Your task to perform on an android device: turn on sleep mode Image 0: 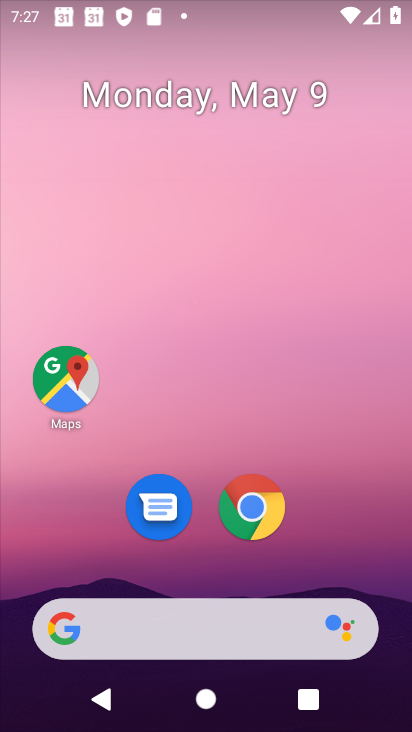
Step 0: drag from (252, 669) to (319, 126)
Your task to perform on an android device: turn on sleep mode Image 1: 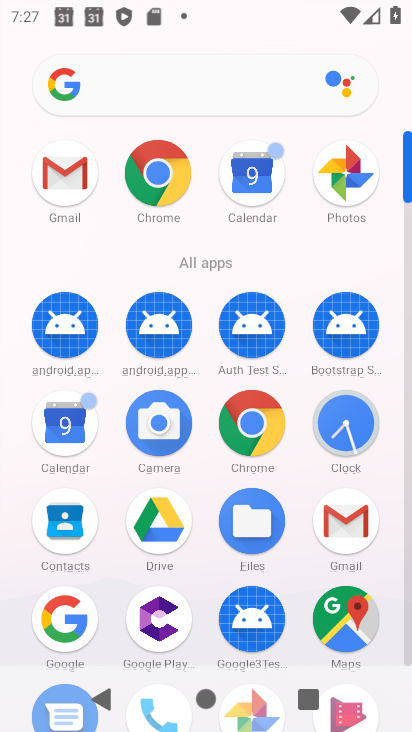
Step 1: drag from (209, 572) to (257, 351)
Your task to perform on an android device: turn on sleep mode Image 2: 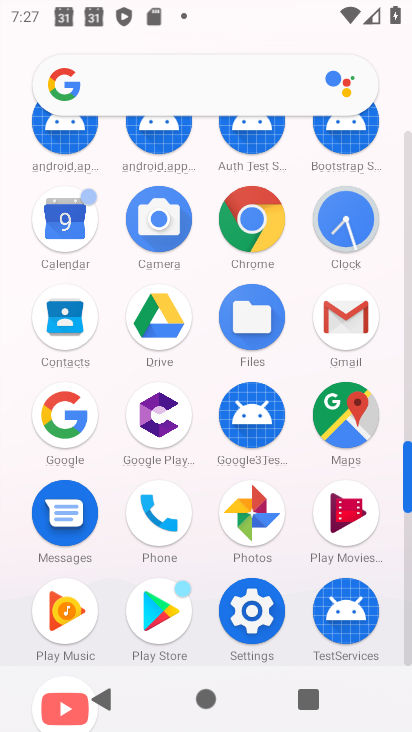
Step 2: click (248, 619)
Your task to perform on an android device: turn on sleep mode Image 3: 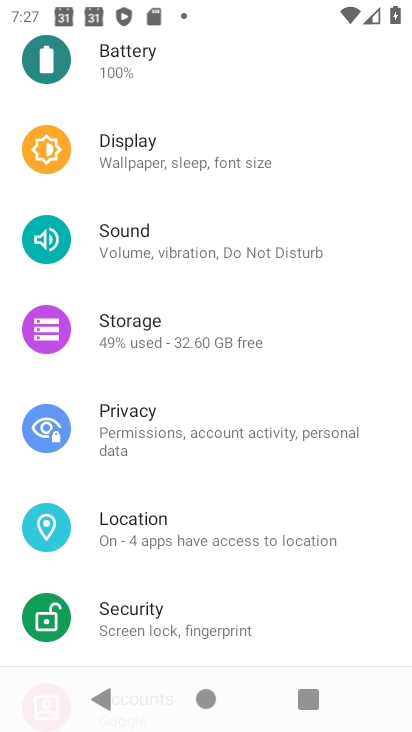
Step 3: drag from (182, 307) to (186, 470)
Your task to perform on an android device: turn on sleep mode Image 4: 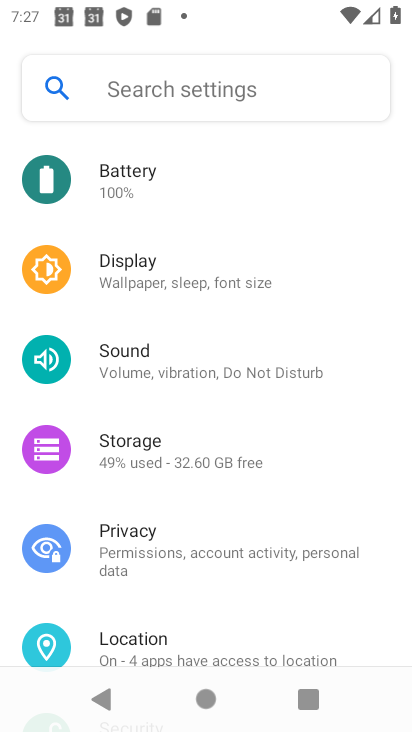
Step 4: click (198, 92)
Your task to perform on an android device: turn on sleep mode Image 5: 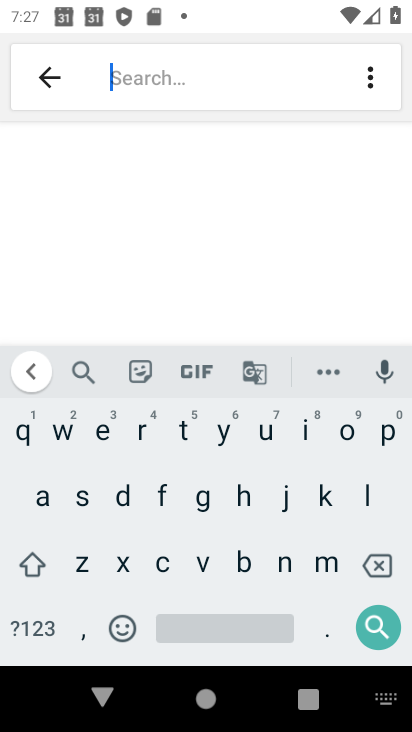
Step 5: click (78, 497)
Your task to perform on an android device: turn on sleep mode Image 6: 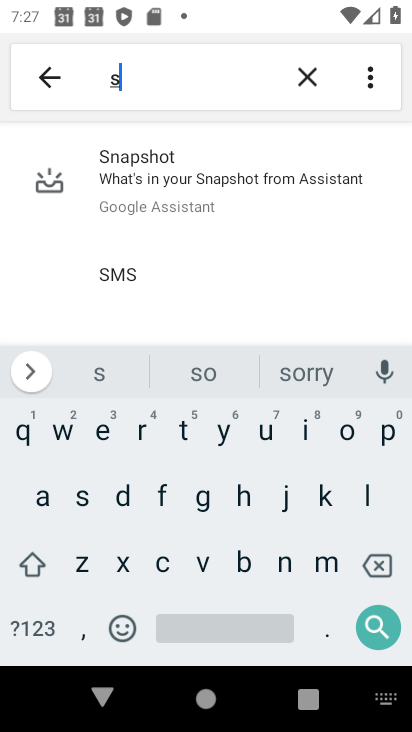
Step 6: click (364, 497)
Your task to perform on an android device: turn on sleep mode Image 7: 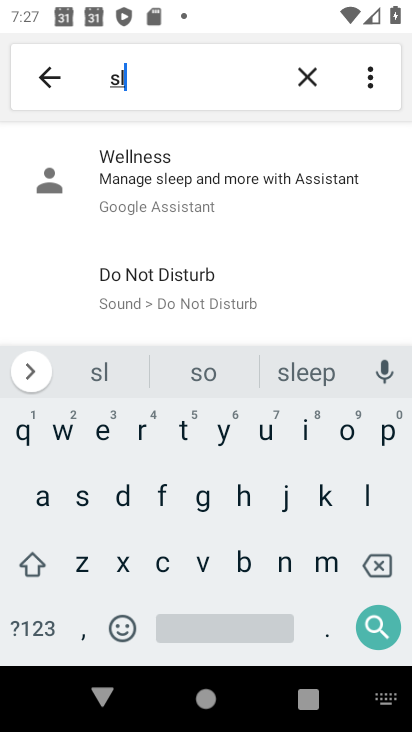
Step 7: click (101, 433)
Your task to perform on an android device: turn on sleep mode Image 8: 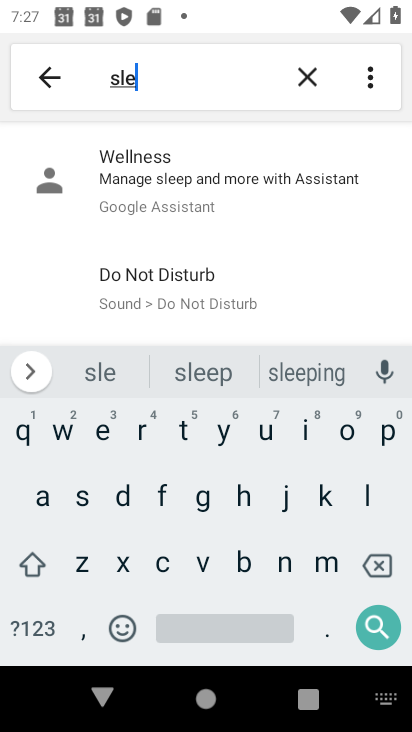
Step 8: click (160, 193)
Your task to perform on an android device: turn on sleep mode Image 9: 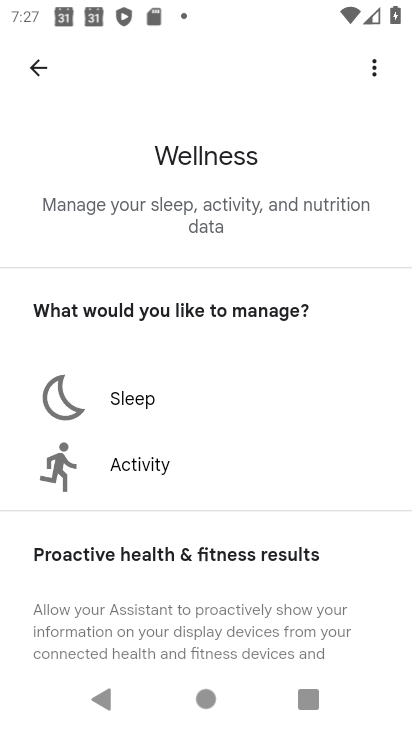
Step 9: click (130, 402)
Your task to perform on an android device: turn on sleep mode Image 10: 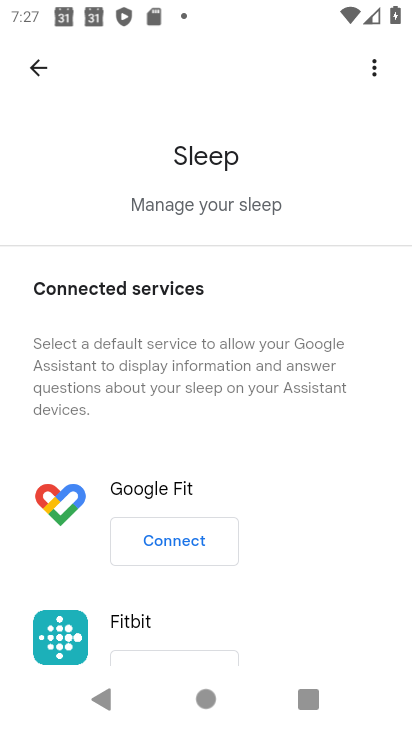
Step 10: task complete